Your task to perform on an android device: turn off javascript in the chrome app Image 0: 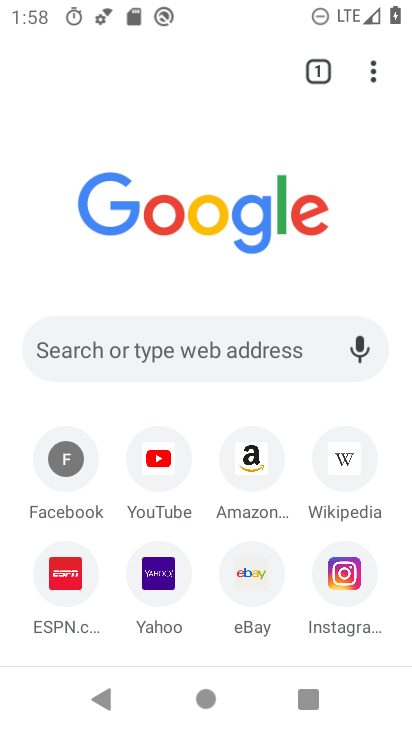
Step 0: click (388, 81)
Your task to perform on an android device: turn off javascript in the chrome app Image 1: 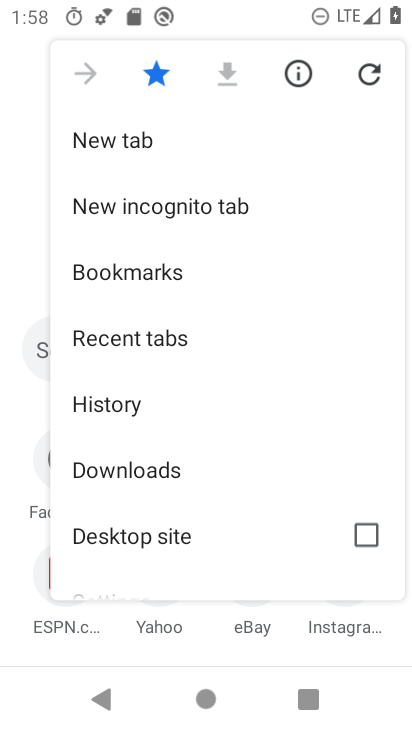
Step 1: task complete